Your task to perform on an android device: Open eBay Image 0: 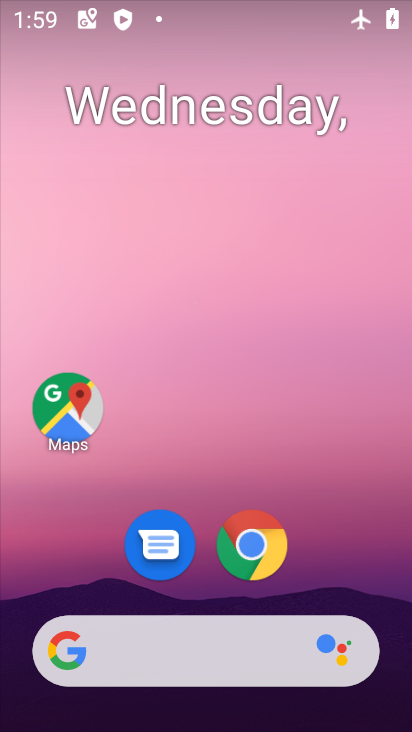
Step 0: click (252, 540)
Your task to perform on an android device: Open eBay Image 1: 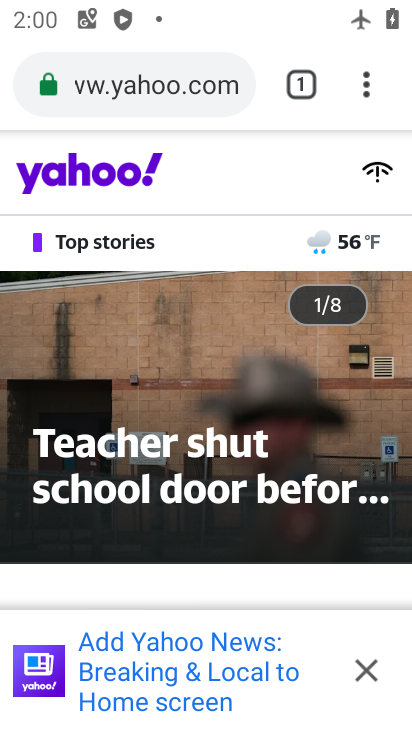
Step 1: click (207, 81)
Your task to perform on an android device: Open eBay Image 2: 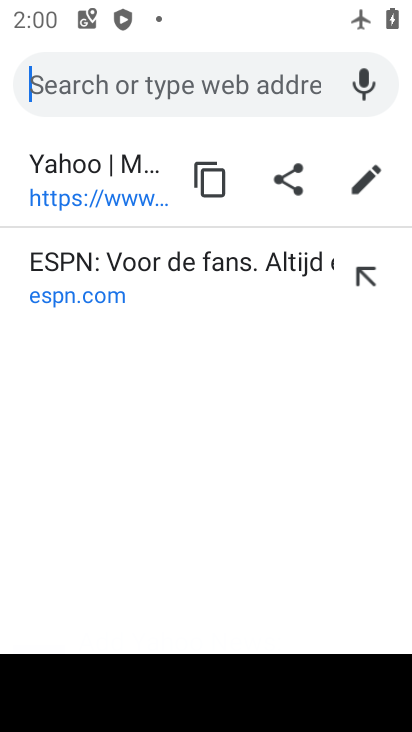
Step 2: type "ebay"
Your task to perform on an android device: Open eBay Image 3: 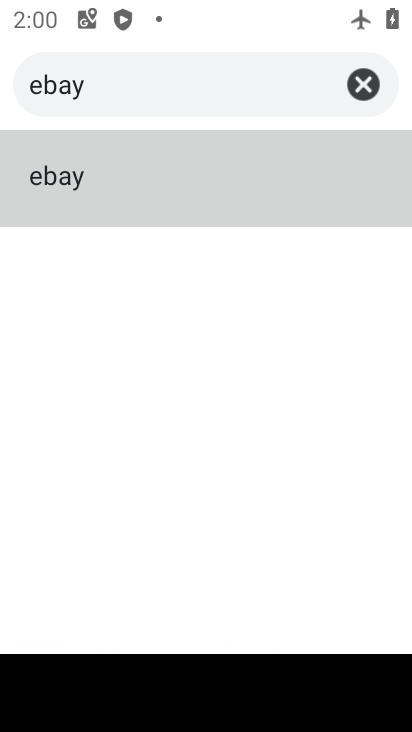
Step 3: click (74, 175)
Your task to perform on an android device: Open eBay Image 4: 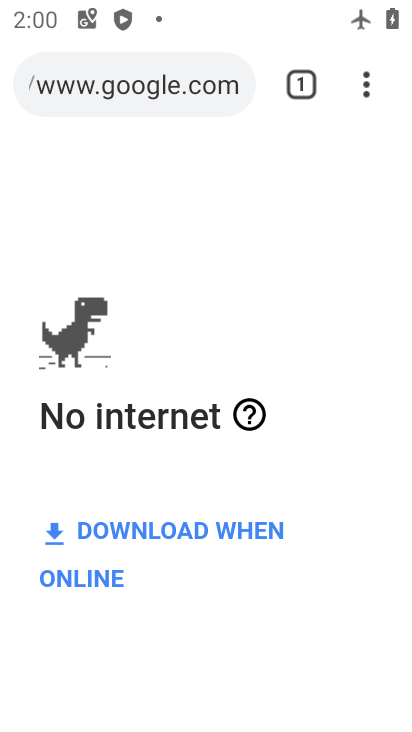
Step 4: task complete